Your task to perform on an android device: Toggle the flashlight Image 0: 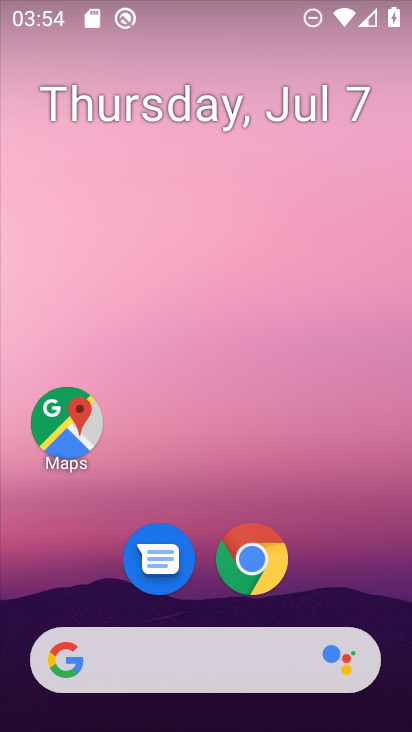
Step 0: drag from (257, 4) to (246, 300)
Your task to perform on an android device: Toggle the flashlight Image 1: 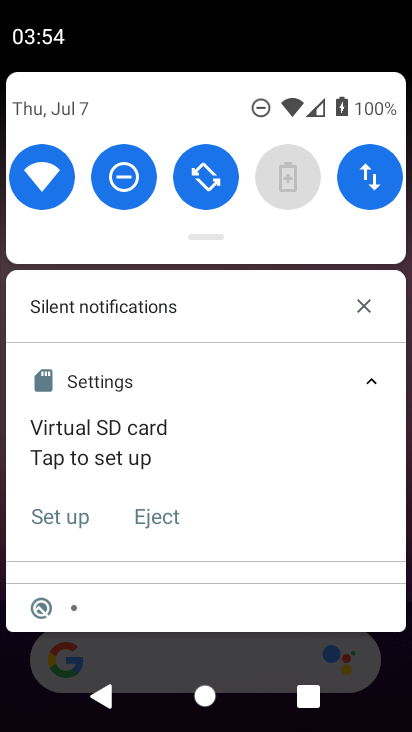
Step 1: drag from (238, 125) to (267, 359)
Your task to perform on an android device: Toggle the flashlight Image 2: 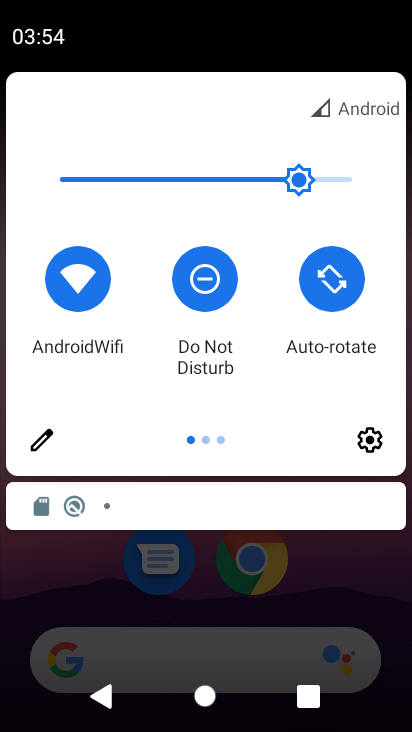
Step 2: click (42, 441)
Your task to perform on an android device: Toggle the flashlight Image 3: 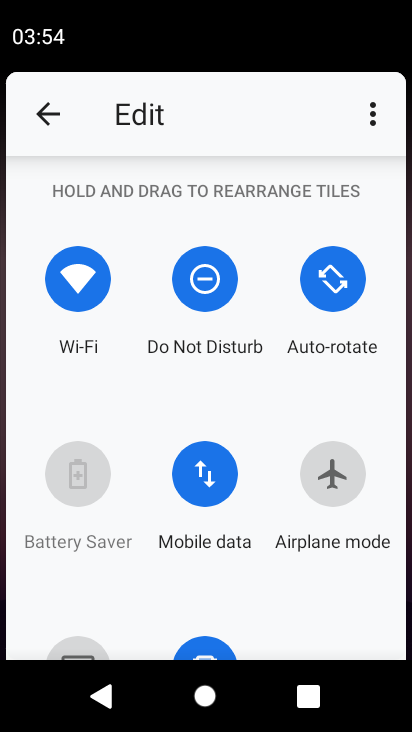
Step 3: task complete